Your task to perform on an android device: show emergency info Image 0: 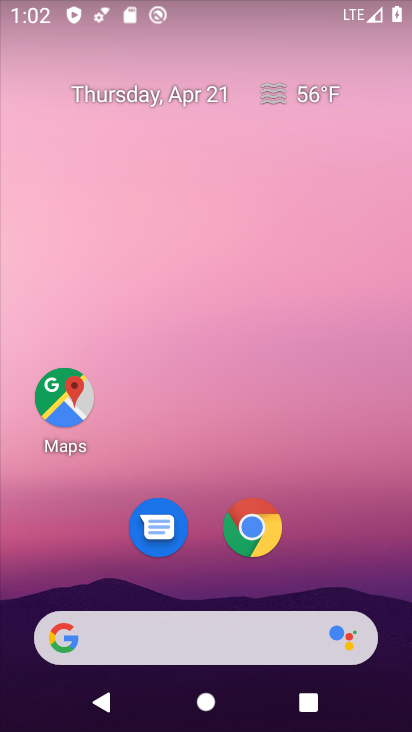
Step 0: drag from (180, 304) to (232, 27)
Your task to perform on an android device: show emergency info Image 1: 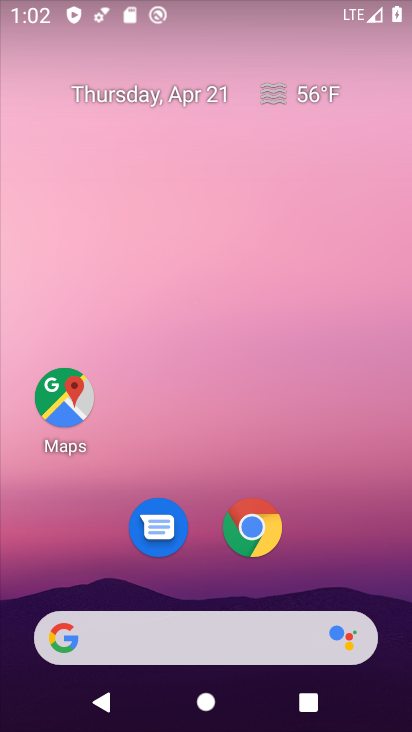
Step 1: drag from (199, 386) to (259, 47)
Your task to perform on an android device: show emergency info Image 2: 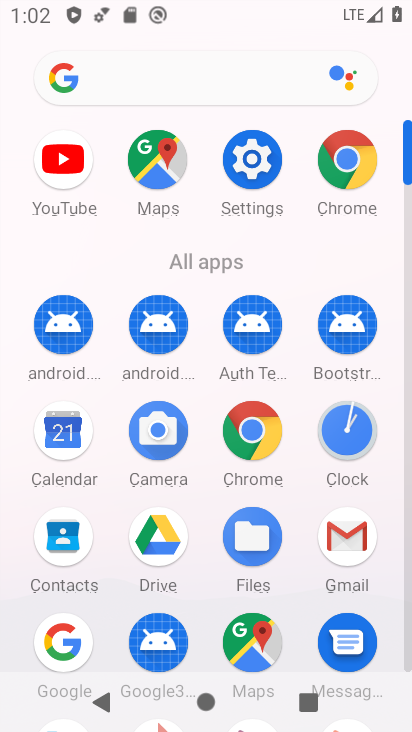
Step 2: drag from (195, 502) to (291, 172)
Your task to perform on an android device: show emergency info Image 3: 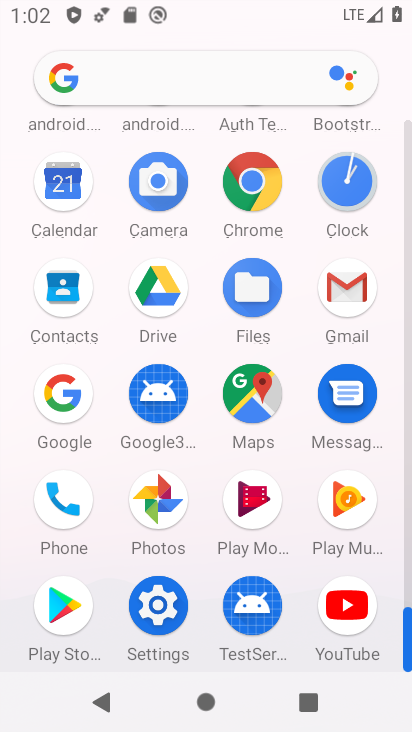
Step 3: click (161, 620)
Your task to perform on an android device: show emergency info Image 4: 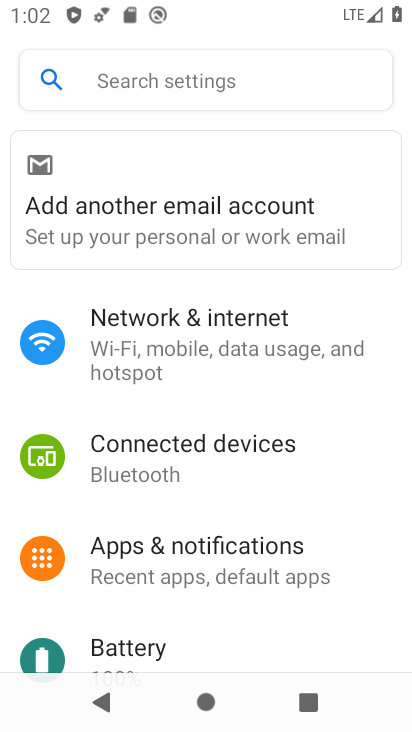
Step 4: drag from (195, 594) to (234, 72)
Your task to perform on an android device: show emergency info Image 5: 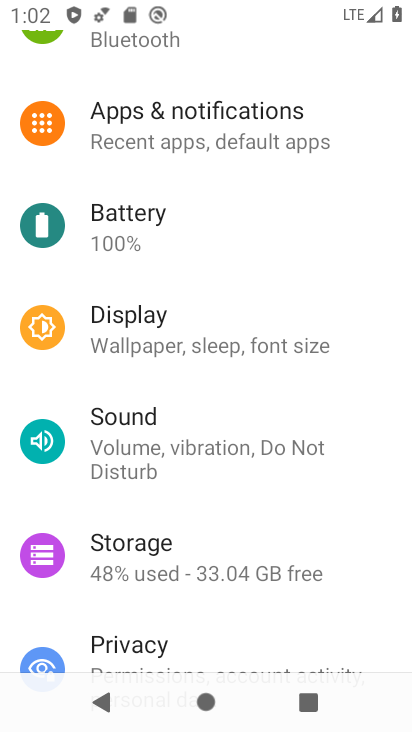
Step 5: drag from (214, 616) to (280, 154)
Your task to perform on an android device: show emergency info Image 6: 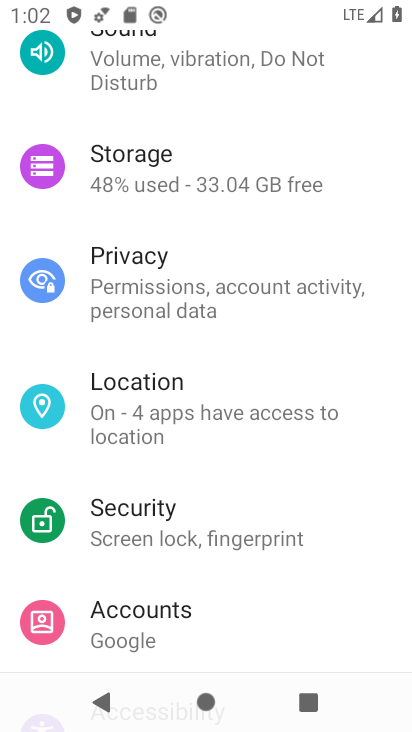
Step 6: drag from (201, 658) to (261, 261)
Your task to perform on an android device: show emergency info Image 7: 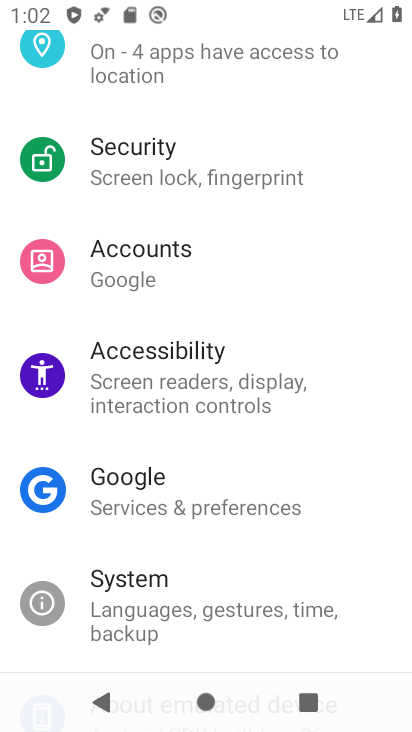
Step 7: drag from (186, 629) to (226, 305)
Your task to perform on an android device: show emergency info Image 8: 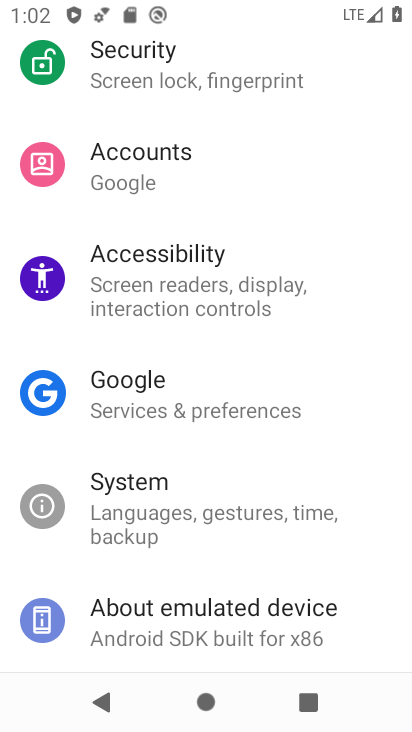
Step 8: click (146, 627)
Your task to perform on an android device: show emergency info Image 9: 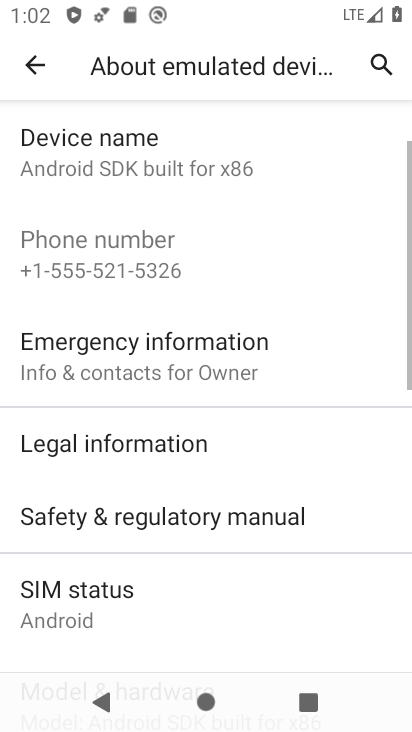
Step 9: click (176, 377)
Your task to perform on an android device: show emergency info Image 10: 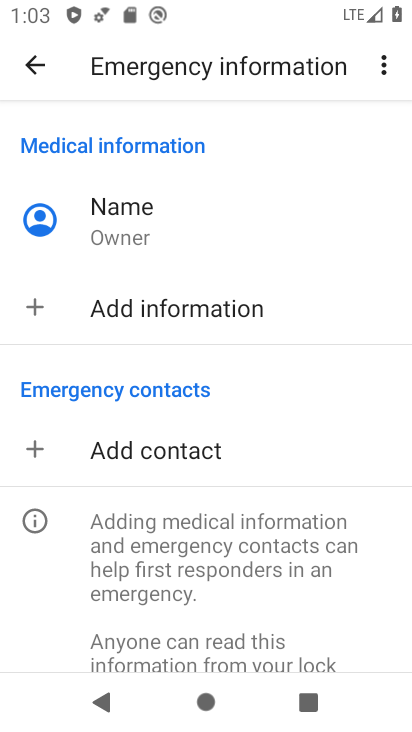
Step 10: task complete